Your task to perform on an android device: toggle pop-ups in chrome Image 0: 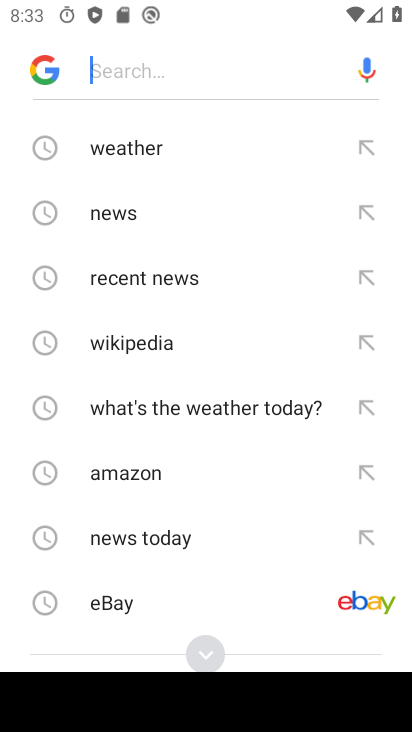
Step 0: press home button
Your task to perform on an android device: toggle pop-ups in chrome Image 1: 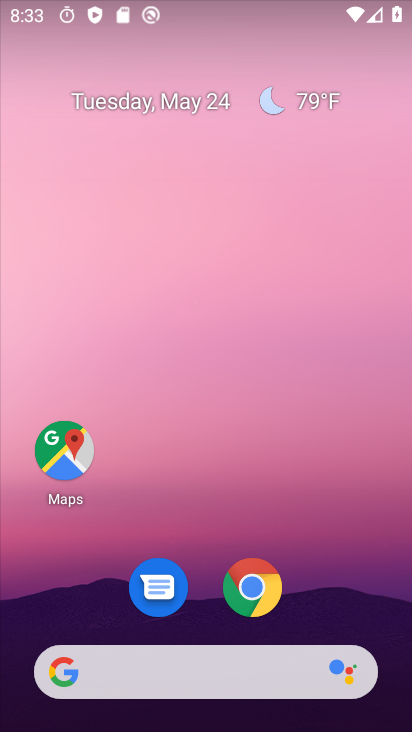
Step 1: click (252, 589)
Your task to perform on an android device: toggle pop-ups in chrome Image 2: 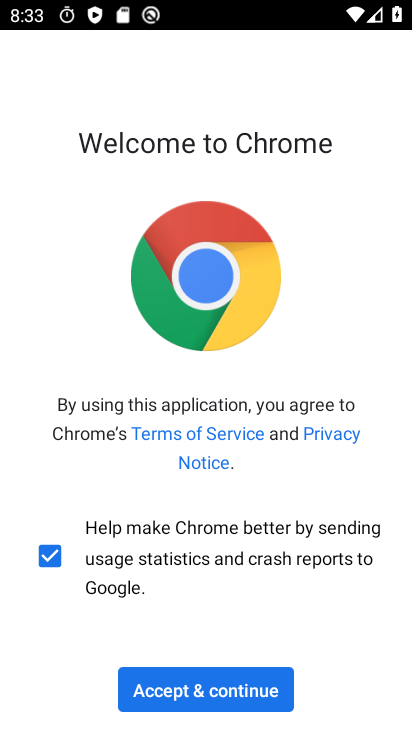
Step 2: click (221, 693)
Your task to perform on an android device: toggle pop-ups in chrome Image 3: 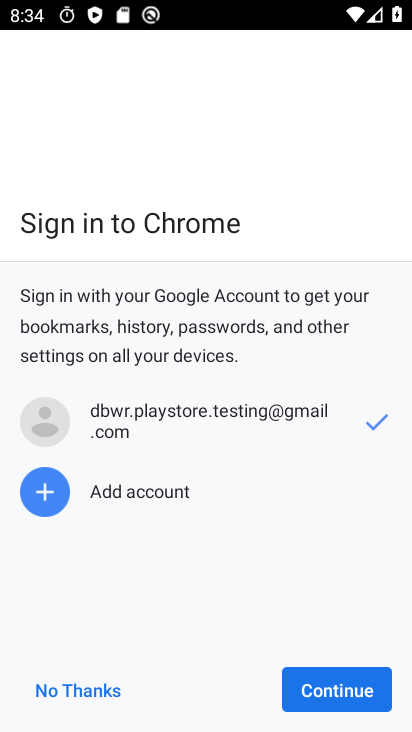
Step 3: click (329, 692)
Your task to perform on an android device: toggle pop-ups in chrome Image 4: 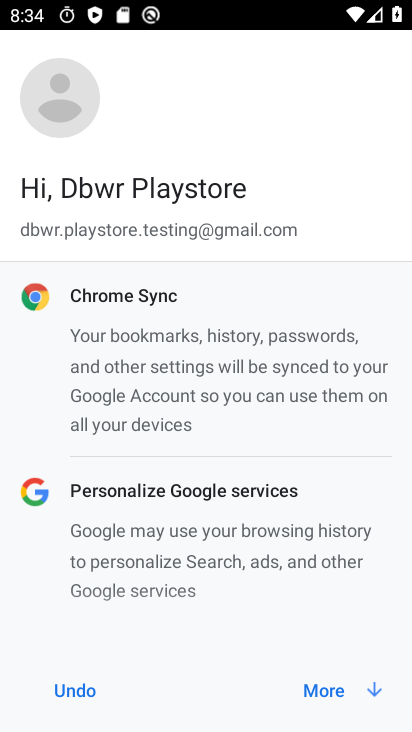
Step 4: click (329, 692)
Your task to perform on an android device: toggle pop-ups in chrome Image 5: 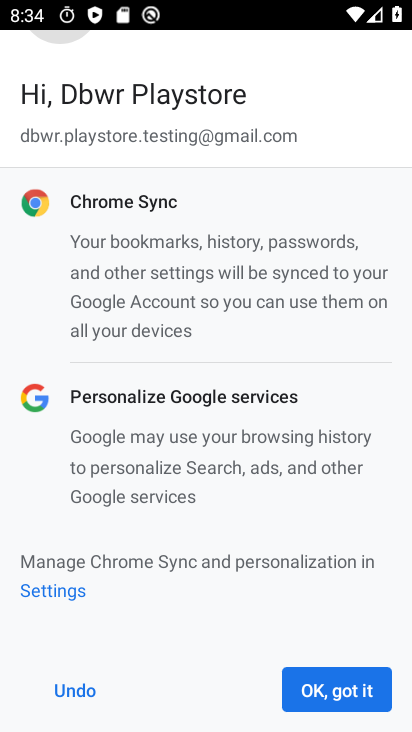
Step 5: click (329, 692)
Your task to perform on an android device: toggle pop-ups in chrome Image 6: 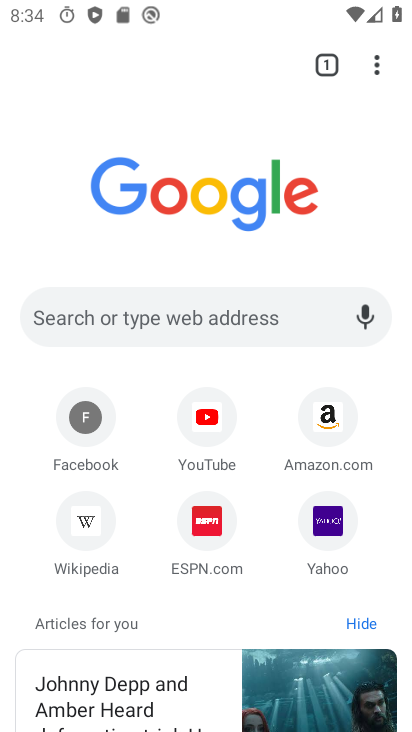
Step 6: click (376, 62)
Your task to perform on an android device: toggle pop-ups in chrome Image 7: 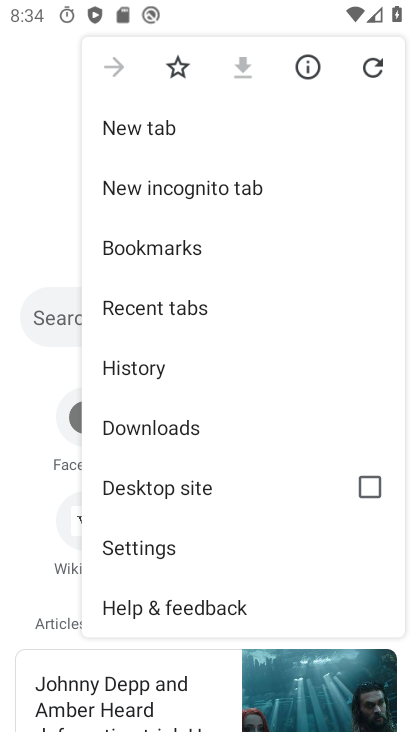
Step 7: click (145, 546)
Your task to perform on an android device: toggle pop-ups in chrome Image 8: 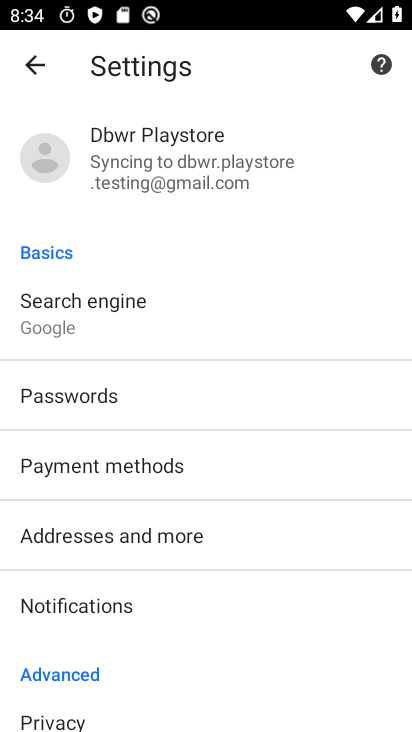
Step 8: drag from (140, 579) to (162, 474)
Your task to perform on an android device: toggle pop-ups in chrome Image 9: 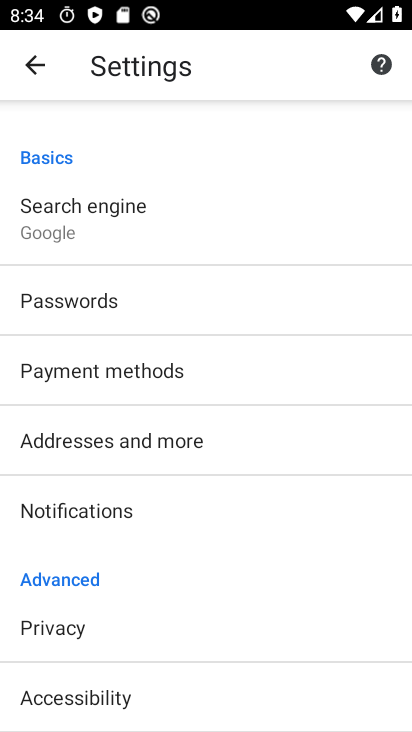
Step 9: drag from (135, 554) to (194, 470)
Your task to perform on an android device: toggle pop-ups in chrome Image 10: 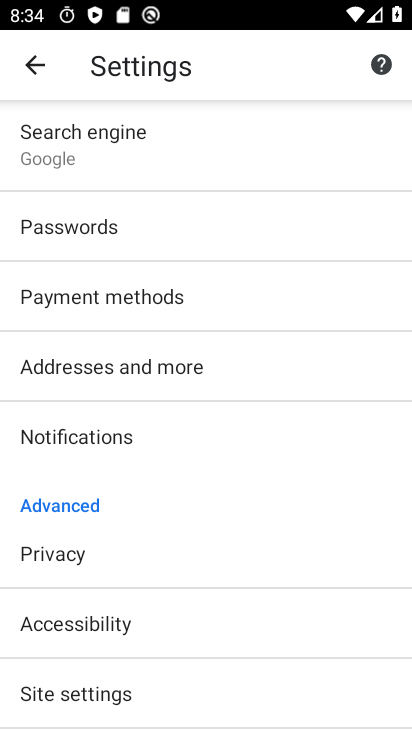
Step 10: drag from (131, 537) to (182, 459)
Your task to perform on an android device: toggle pop-ups in chrome Image 11: 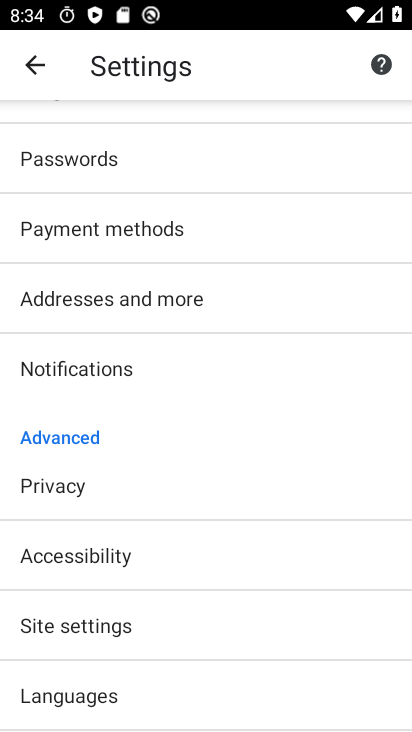
Step 11: click (113, 627)
Your task to perform on an android device: toggle pop-ups in chrome Image 12: 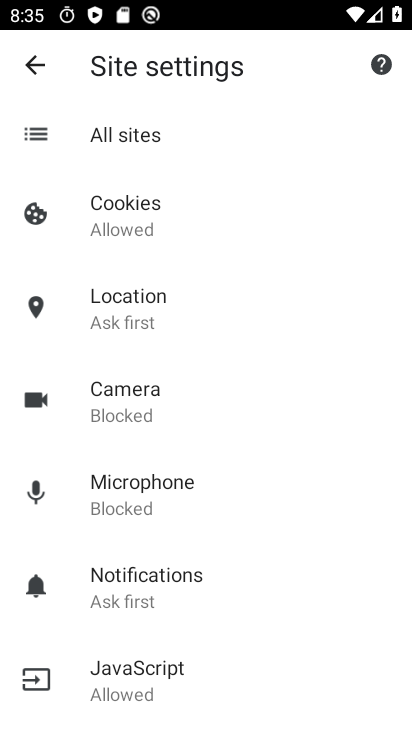
Step 12: drag from (175, 545) to (219, 470)
Your task to perform on an android device: toggle pop-ups in chrome Image 13: 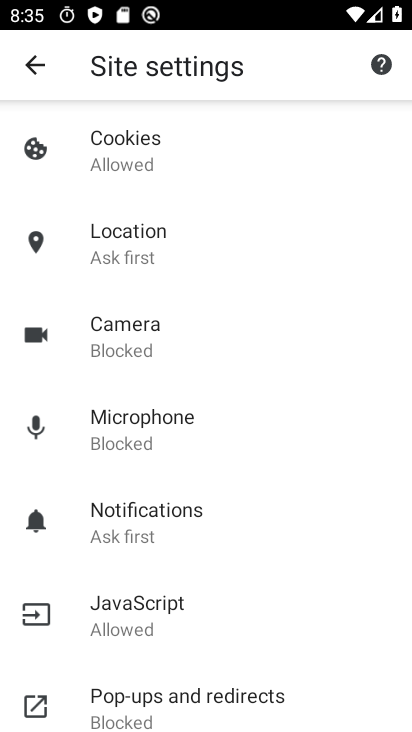
Step 13: drag from (163, 654) to (245, 557)
Your task to perform on an android device: toggle pop-ups in chrome Image 14: 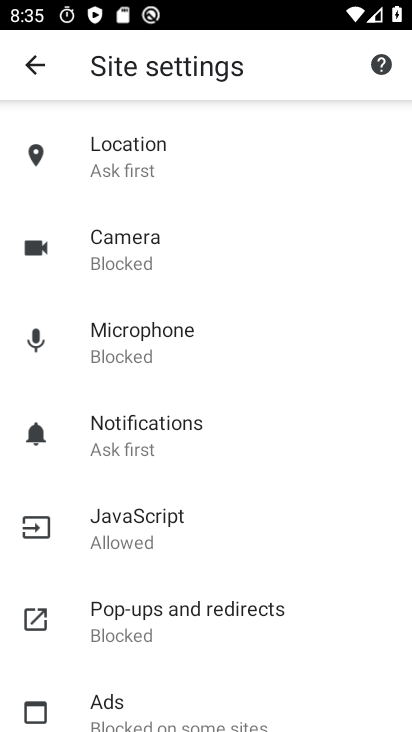
Step 14: click (212, 615)
Your task to perform on an android device: toggle pop-ups in chrome Image 15: 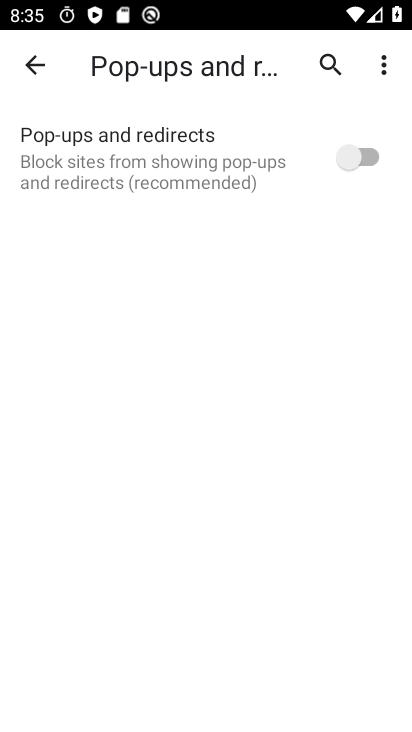
Step 15: click (345, 165)
Your task to perform on an android device: toggle pop-ups in chrome Image 16: 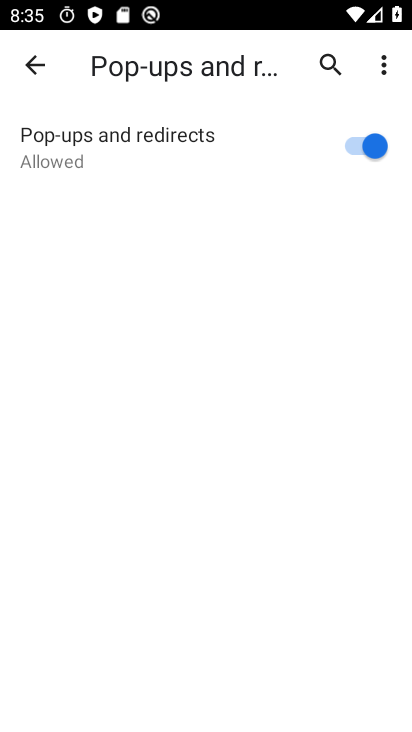
Step 16: task complete